Your task to perform on an android device: change notification settings in the gmail app Image 0: 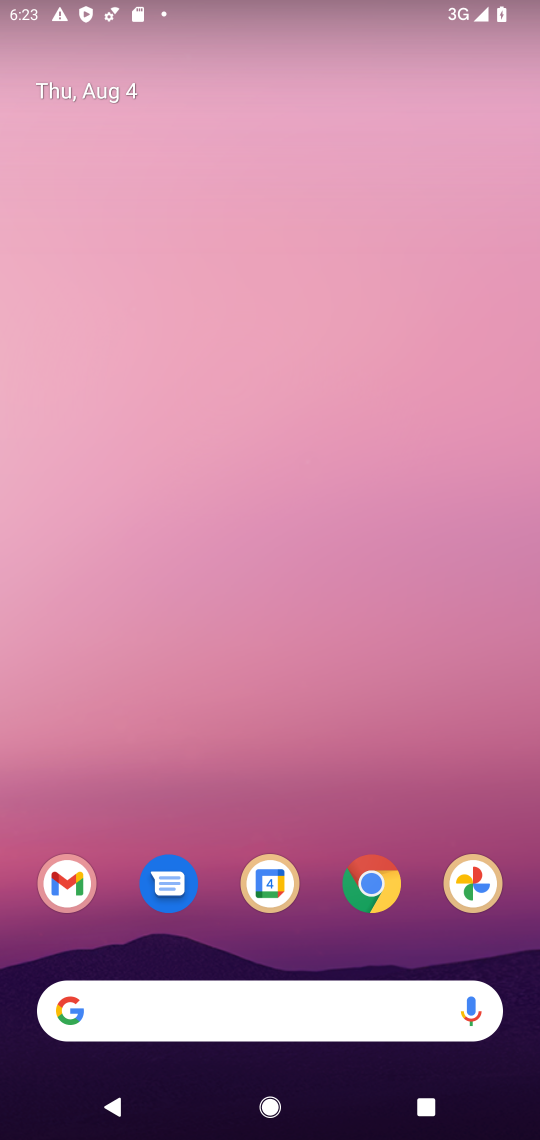
Step 0: drag from (303, 826) to (373, 116)
Your task to perform on an android device: change notification settings in the gmail app Image 1: 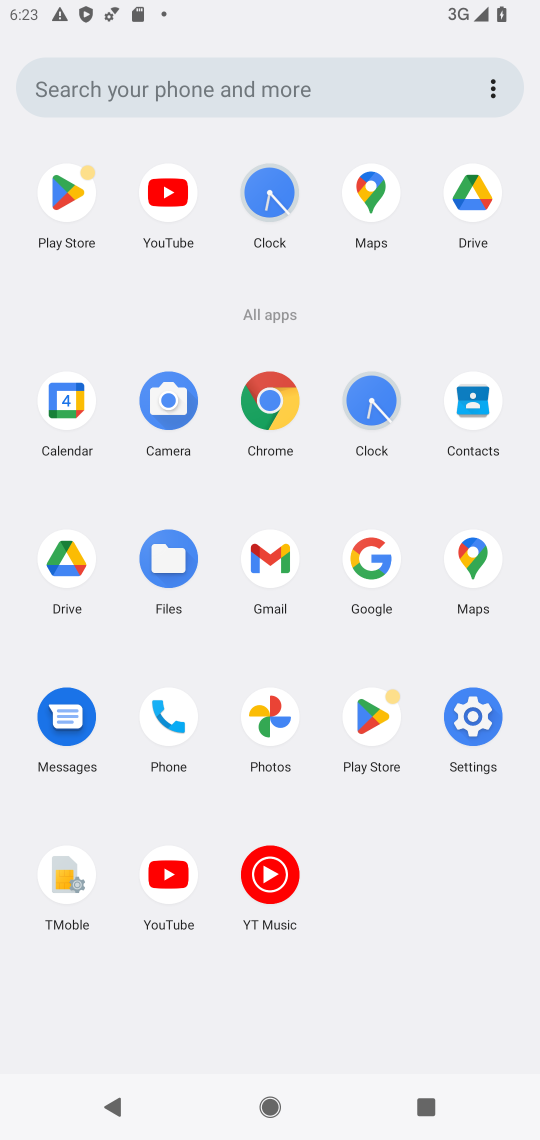
Step 1: click (272, 556)
Your task to perform on an android device: change notification settings in the gmail app Image 2: 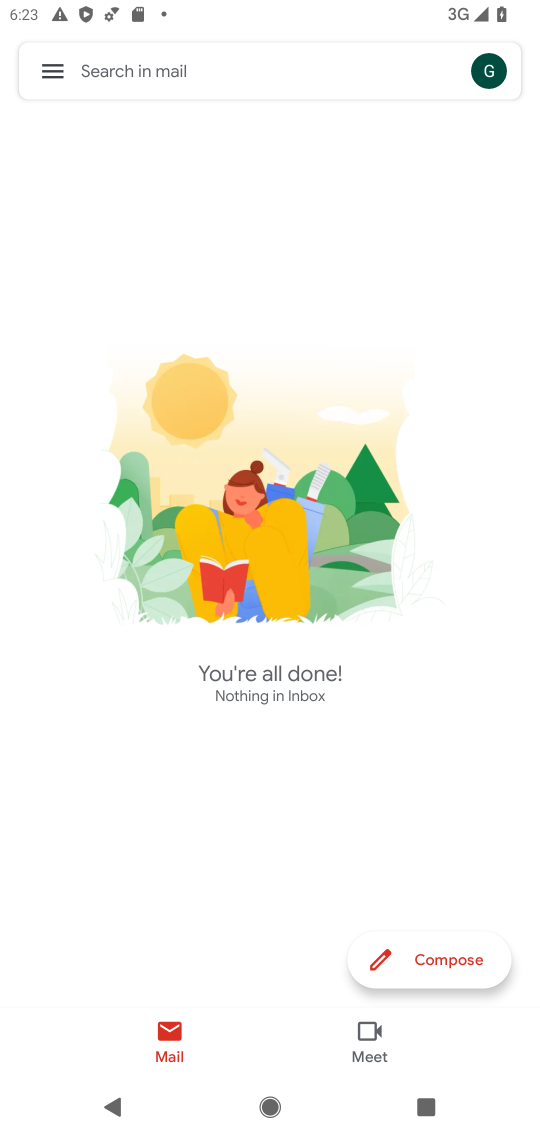
Step 2: click (53, 65)
Your task to perform on an android device: change notification settings in the gmail app Image 3: 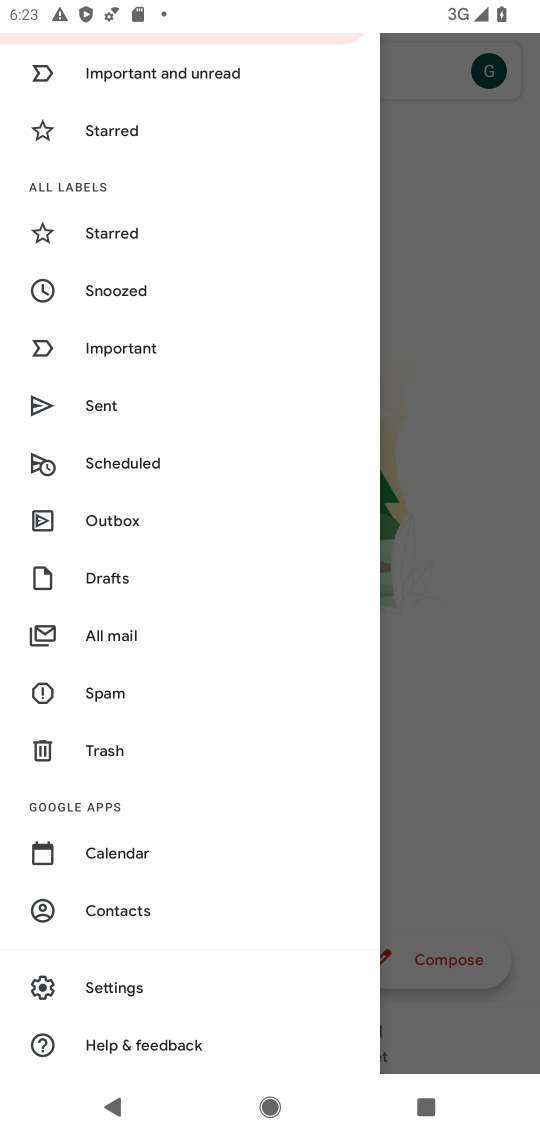
Step 3: click (130, 983)
Your task to perform on an android device: change notification settings in the gmail app Image 4: 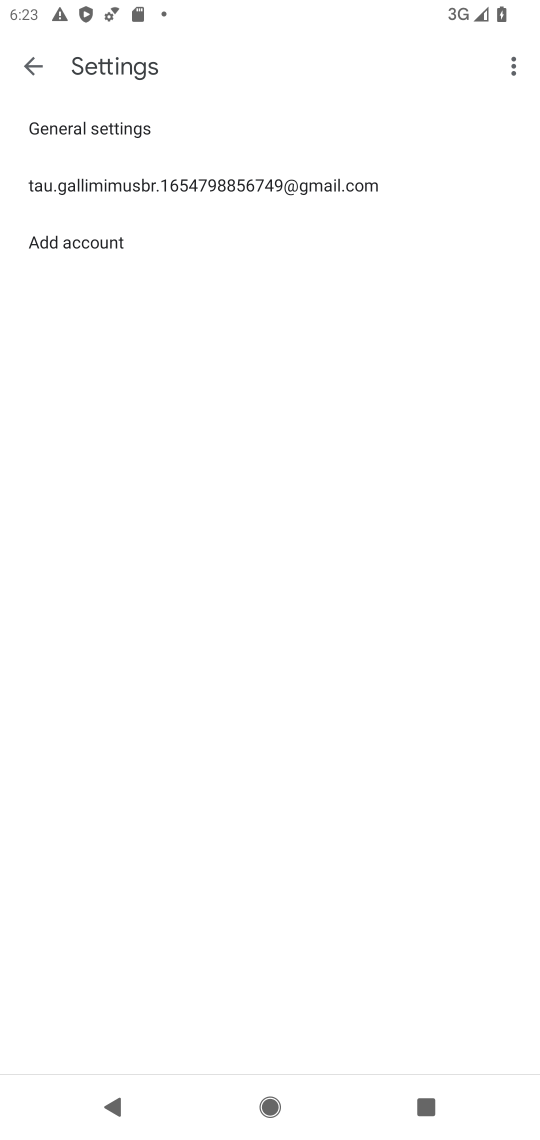
Step 4: click (218, 188)
Your task to perform on an android device: change notification settings in the gmail app Image 5: 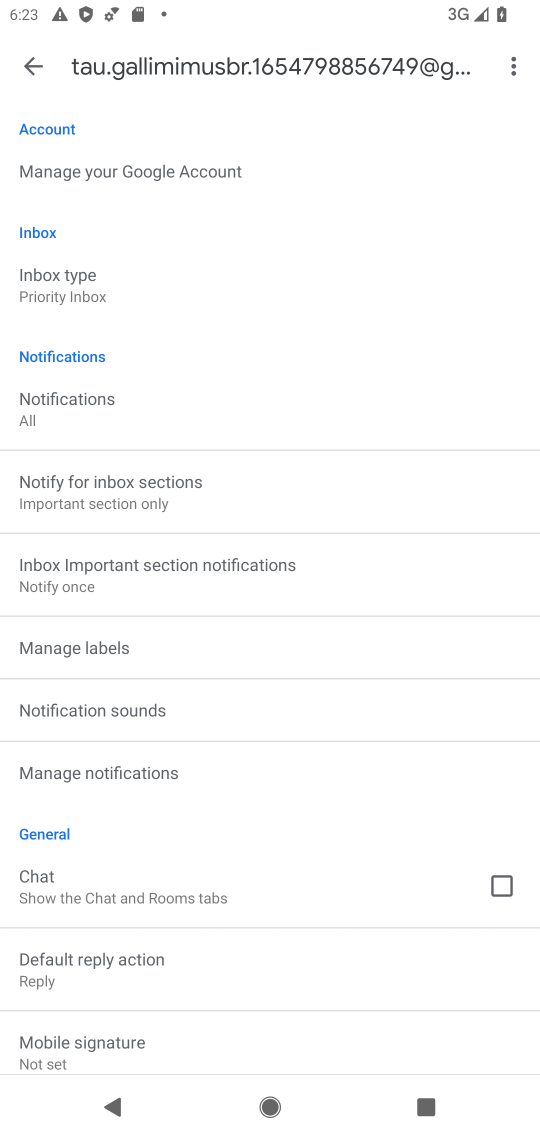
Step 5: click (197, 792)
Your task to perform on an android device: change notification settings in the gmail app Image 6: 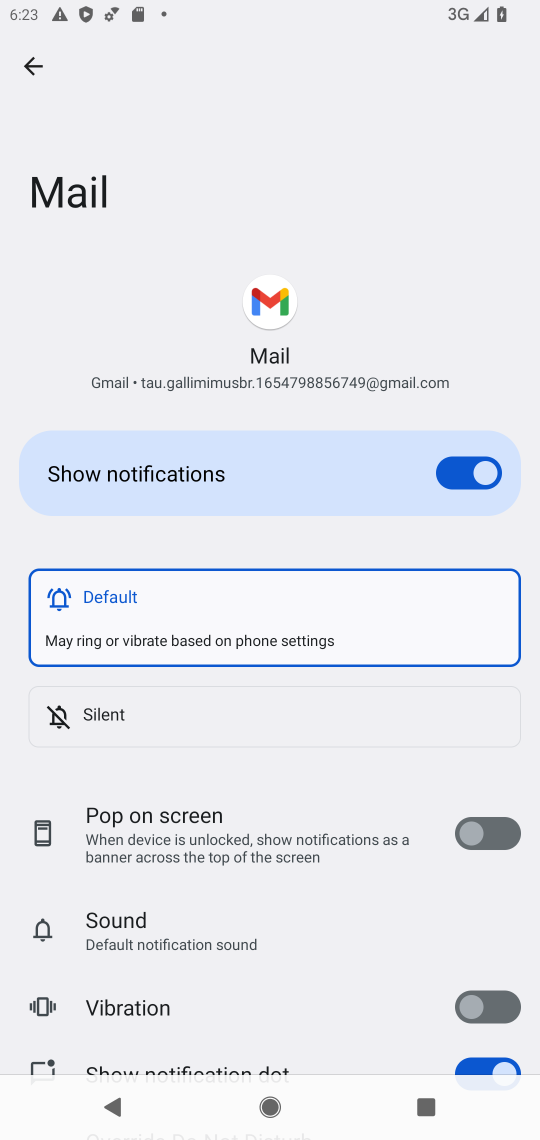
Step 6: drag from (281, 719) to (239, 19)
Your task to perform on an android device: change notification settings in the gmail app Image 7: 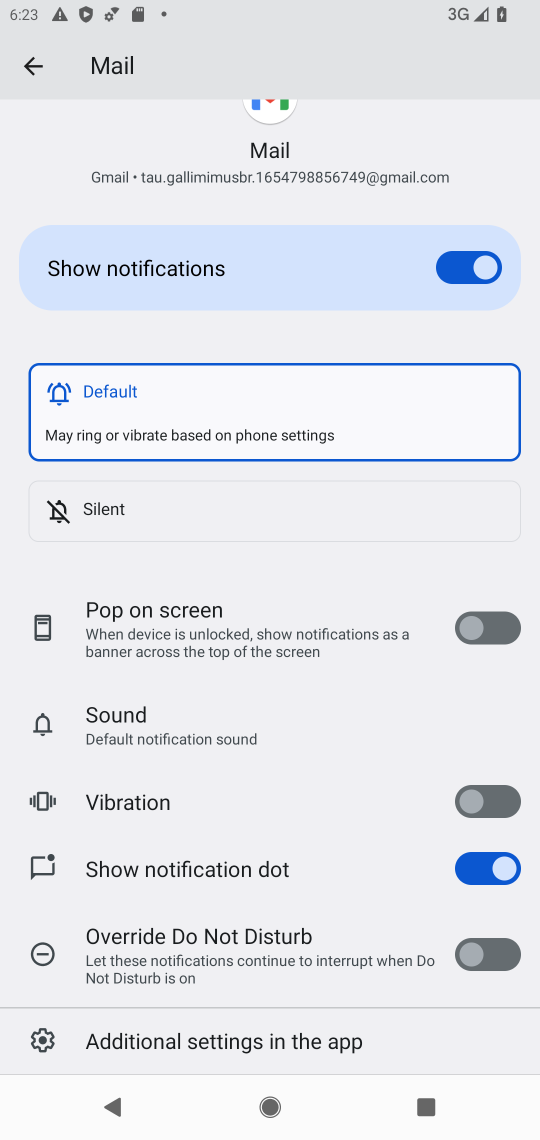
Step 7: click (501, 867)
Your task to perform on an android device: change notification settings in the gmail app Image 8: 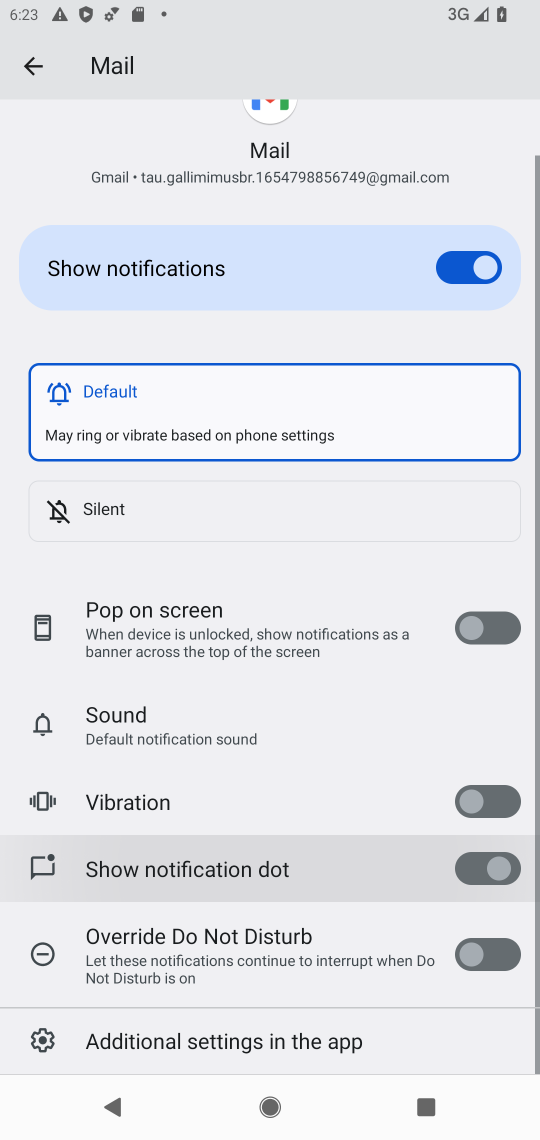
Step 8: click (498, 792)
Your task to perform on an android device: change notification settings in the gmail app Image 9: 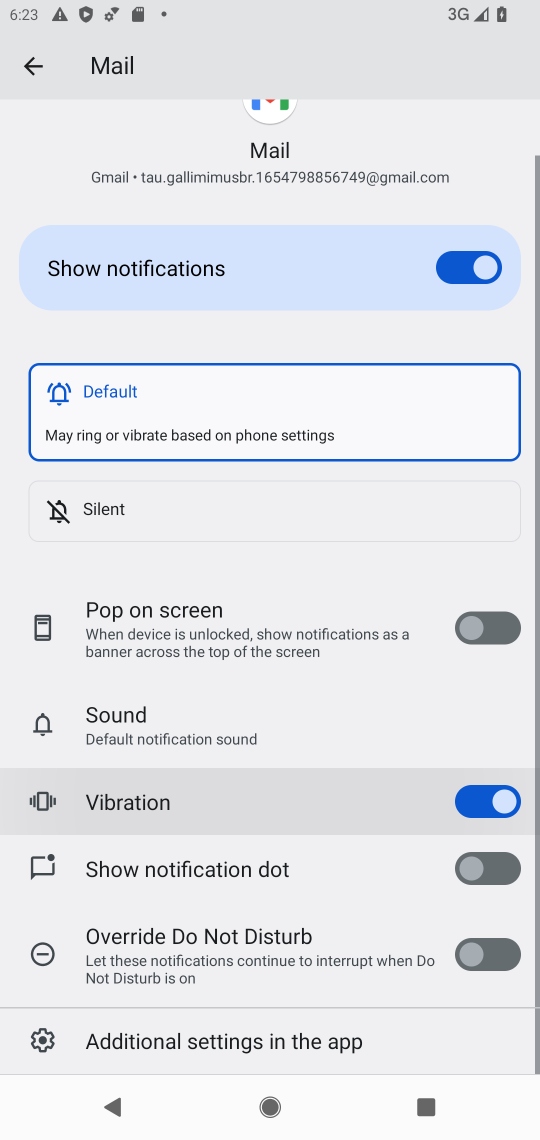
Step 9: click (498, 633)
Your task to perform on an android device: change notification settings in the gmail app Image 10: 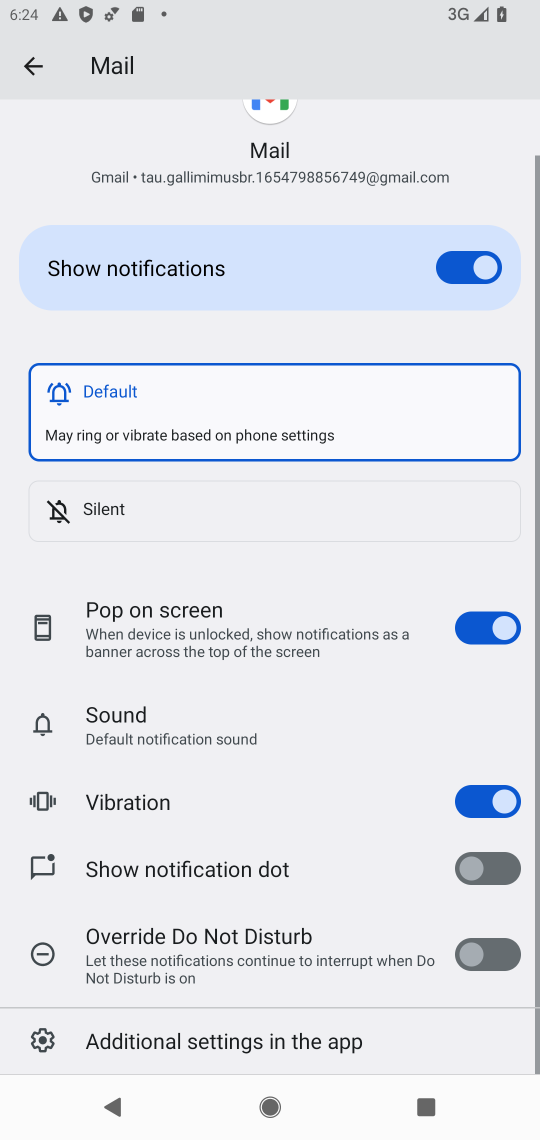
Step 10: click (503, 957)
Your task to perform on an android device: change notification settings in the gmail app Image 11: 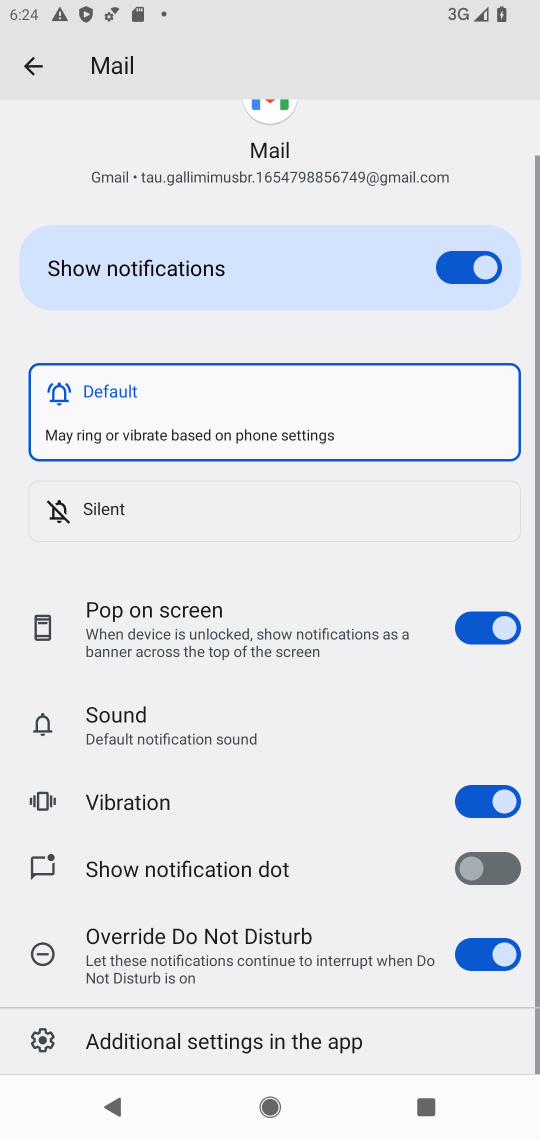
Step 11: task complete